Your task to perform on an android device: When is my next appointment? Image 0: 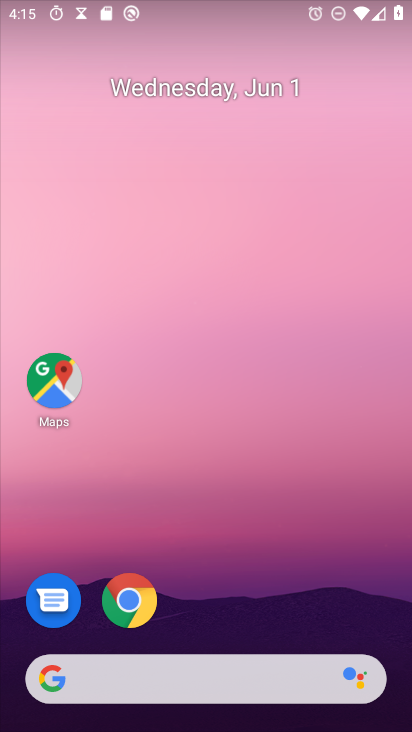
Step 0: drag from (215, 620) to (214, 16)
Your task to perform on an android device: When is my next appointment? Image 1: 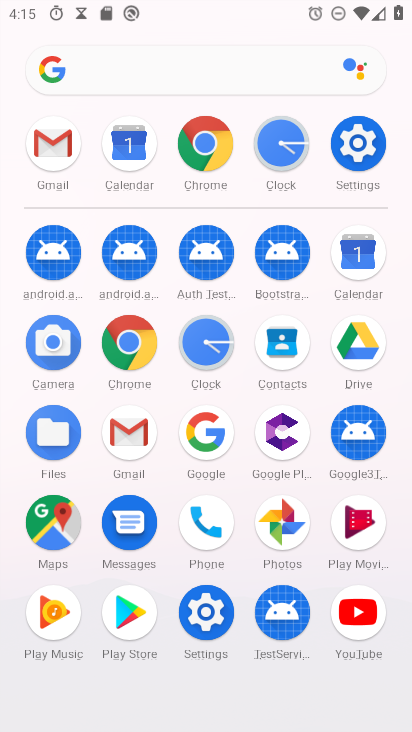
Step 1: click (350, 152)
Your task to perform on an android device: When is my next appointment? Image 2: 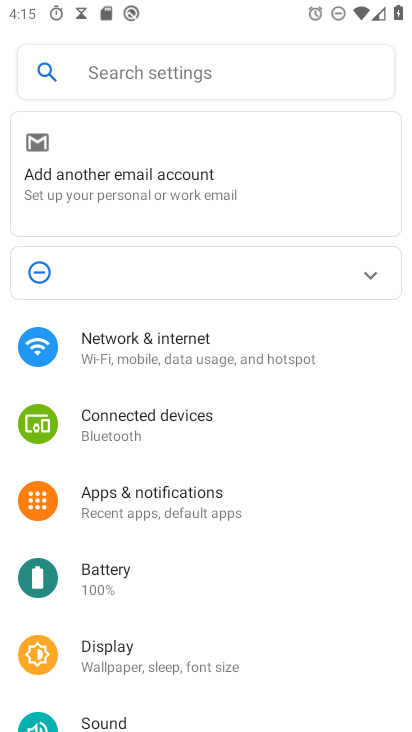
Step 2: press home button
Your task to perform on an android device: When is my next appointment? Image 3: 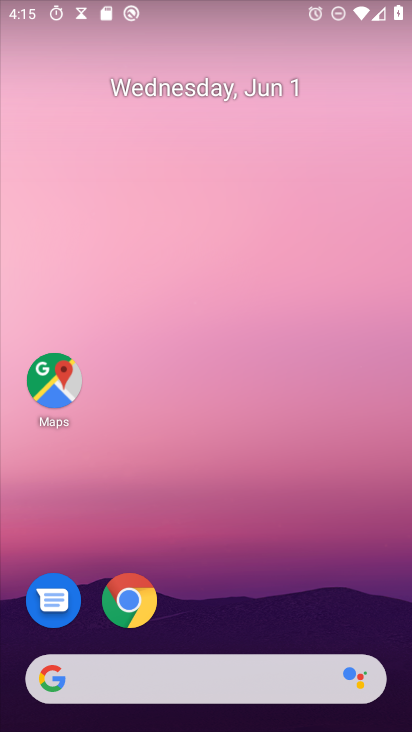
Step 3: drag from (215, 615) to (203, 0)
Your task to perform on an android device: When is my next appointment? Image 4: 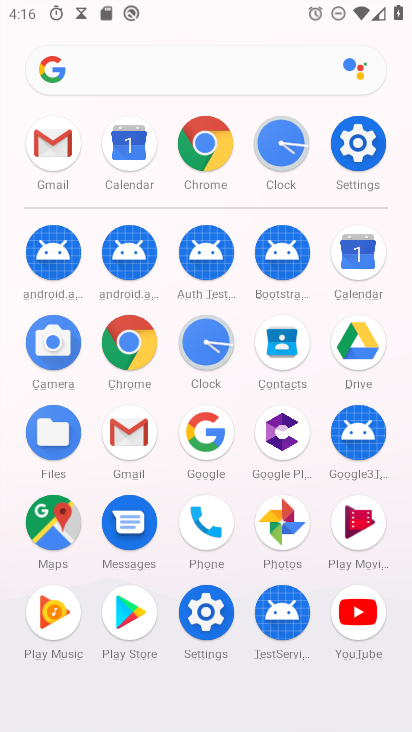
Step 4: click (120, 157)
Your task to perform on an android device: When is my next appointment? Image 5: 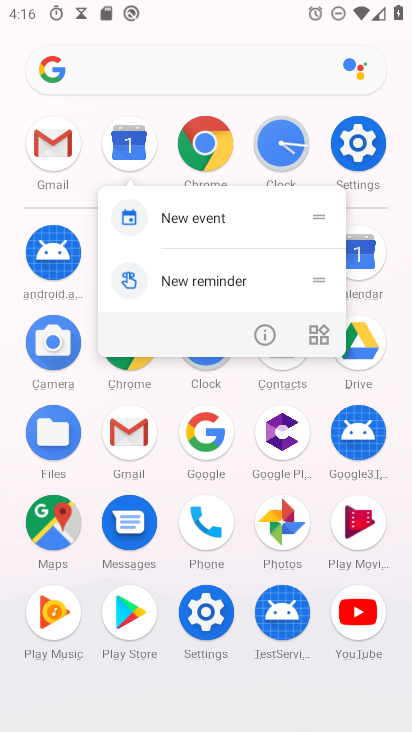
Step 5: click (123, 148)
Your task to perform on an android device: When is my next appointment? Image 6: 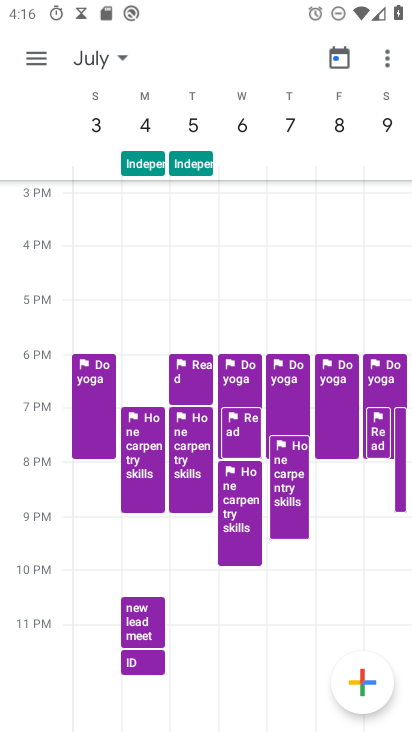
Step 6: click (19, 53)
Your task to perform on an android device: When is my next appointment? Image 7: 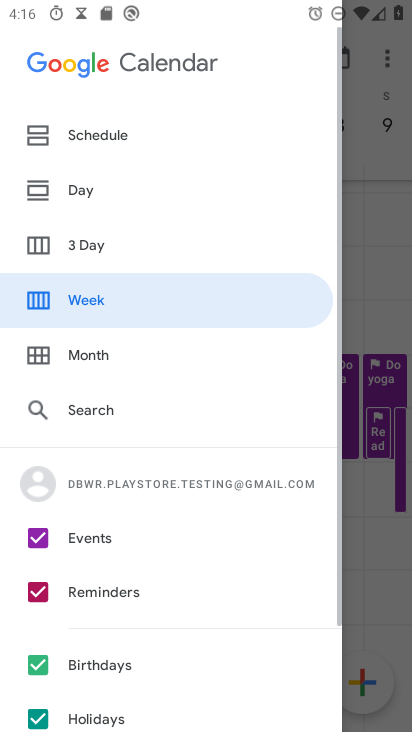
Step 7: click (96, 133)
Your task to perform on an android device: When is my next appointment? Image 8: 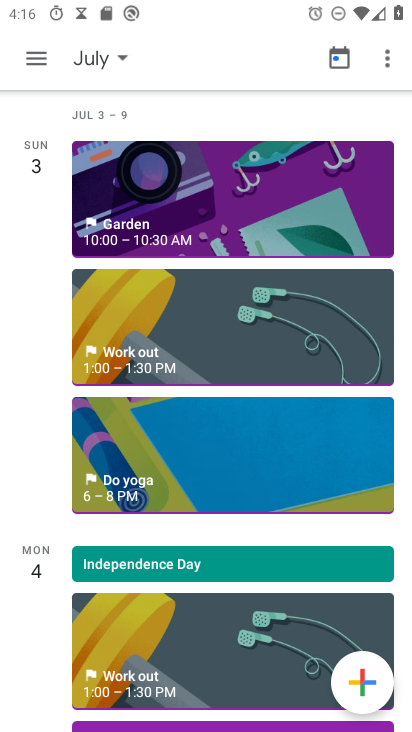
Step 8: click (102, 58)
Your task to perform on an android device: When is my next appointment? Image 9: 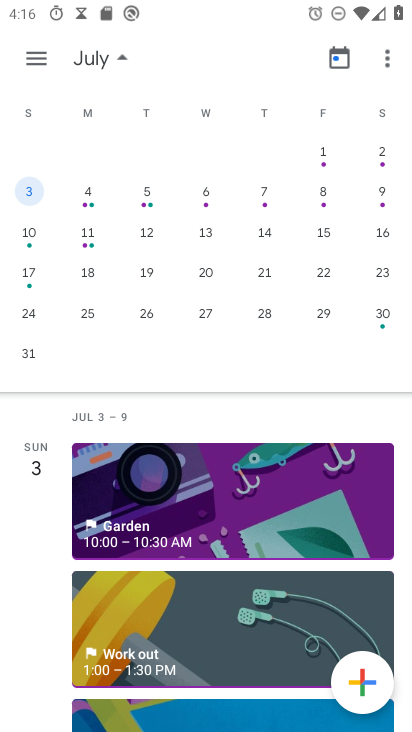
Step 9: task complete